Your task to perform on an android device: allow notifications from all sites in the chrome app Image 0: 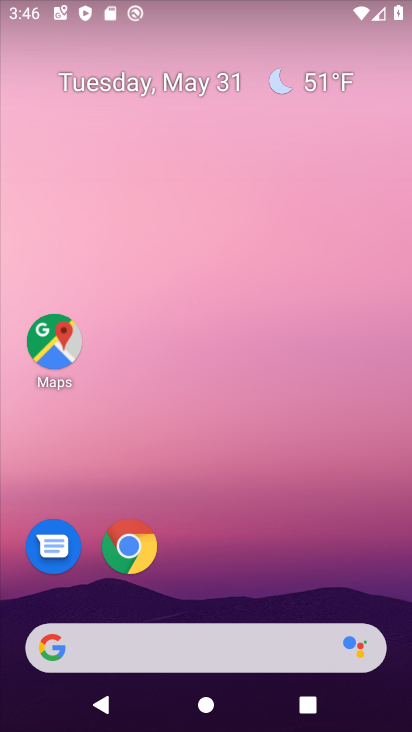
Step 0: drag from (227, 566) to (293, 66)
Your task to perform on an android device: allow notifications from all sites in the chrome app Image 1: 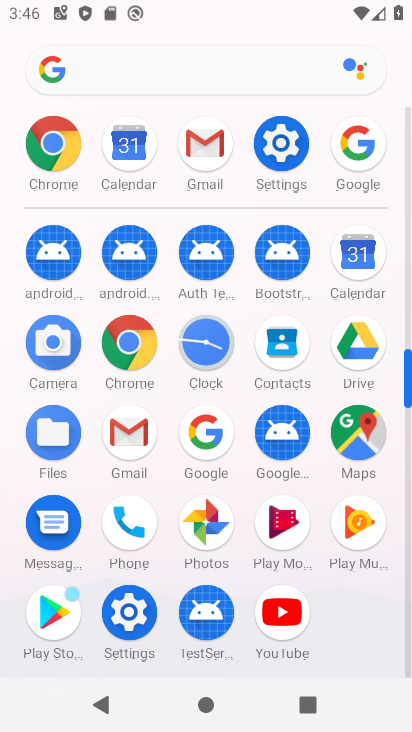
Step 1: click (53, 141)
Your task to perform on an android device: allow notifications from all sites in the chrome app Image 2: 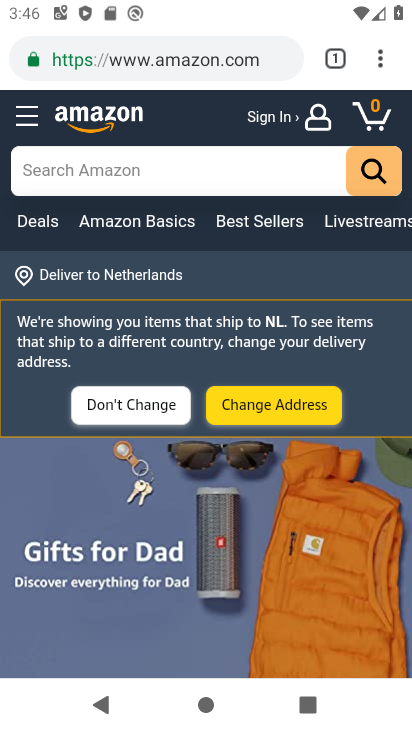
Step 2: click (375, 63)
Your task to perform on an android device: allow notifications from all sites in the chrome app Image 3: 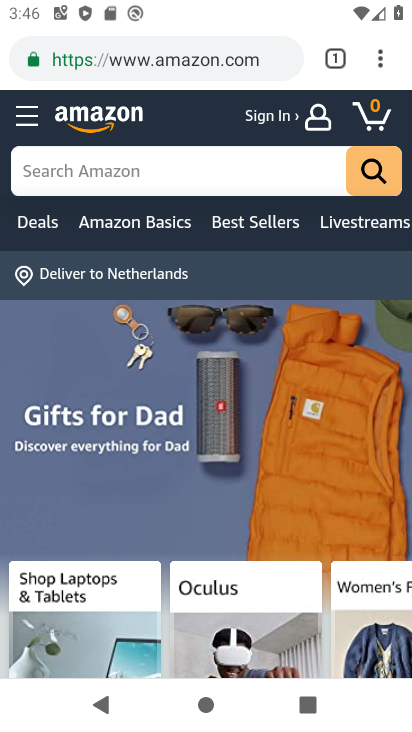
Step 3: click (378, 58)
Your task to perform on an android device: allow notifications from all sites in the chrome app Image 4: 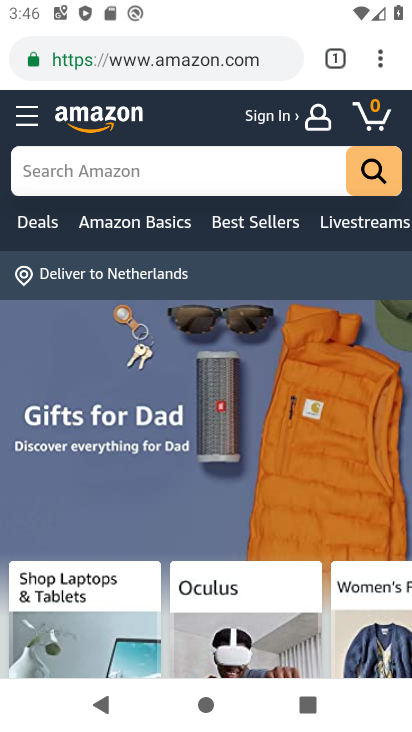
Step 4: click (383, 57)
Your task to perform on an android device: allow notifications from all sites in the chrome app Image 5: 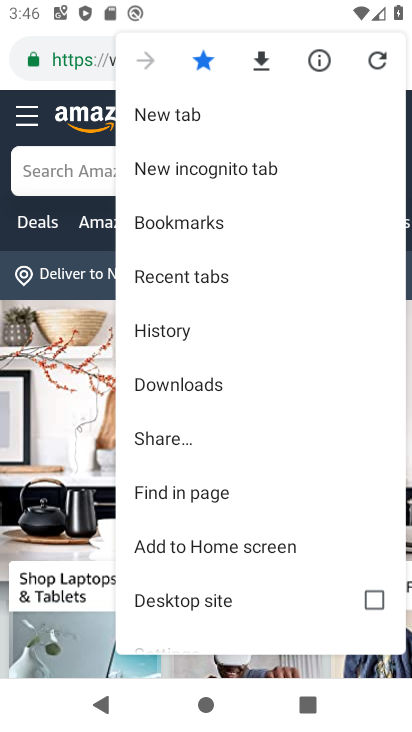
Step 5: drag from (224, 551) to (168, 252)
Your task to perform on an android device: allow notifications from all sites in the chrome app Image 6: 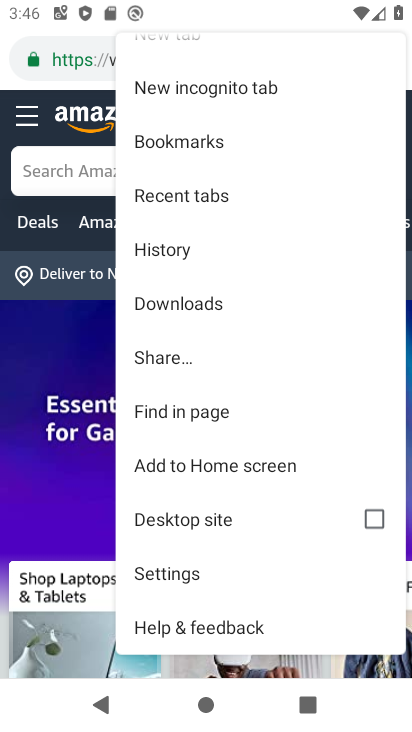
Step 6: click (197, 568)
Your task to perform on an android device: allow notifications from all sites in the chrome app Image 7: 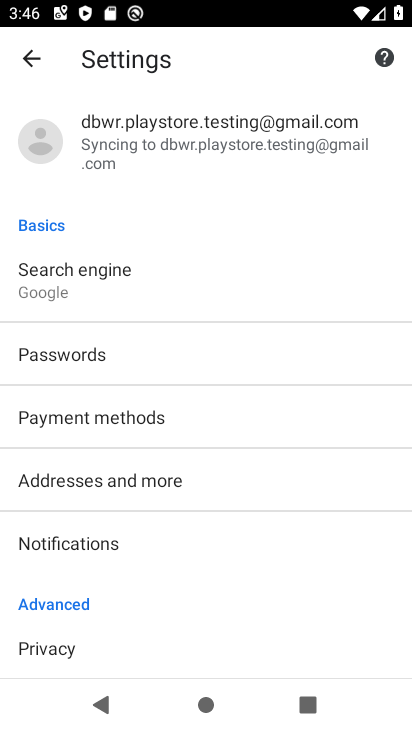
Step 7: drag from (120, 602) to (111, 379)
Your task to perform on an android device: allow notifications from all sites in the chrome app Image 8: 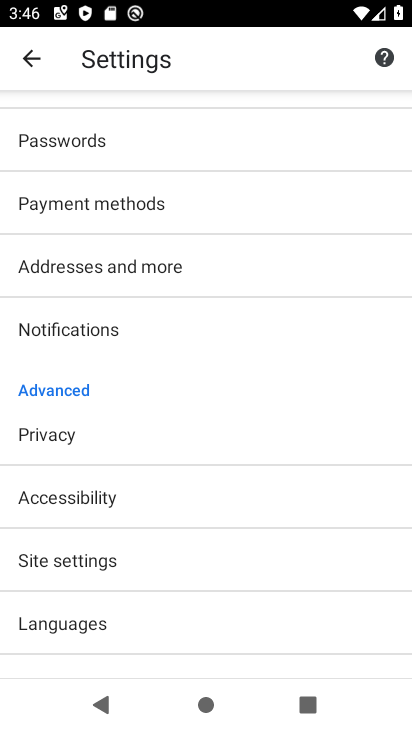
Step 8: click (105, 541)
Your task to perform on an android device: allow notifications from all sites in the chrome app Image 9: 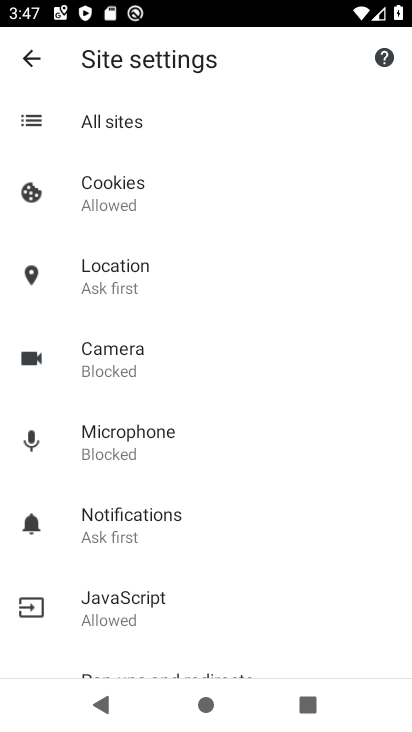
Step 9: click (116, 111)
Your task to perform on an android device: allow notifications from all sites in the chrome app Image 10: 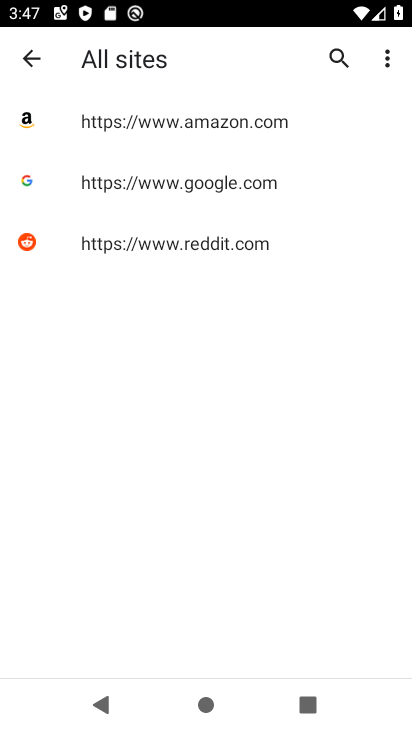
Step 10: click (178, 197)
Your task to perform on an android device: allow notifications from all sites in the chrome app Image 11: 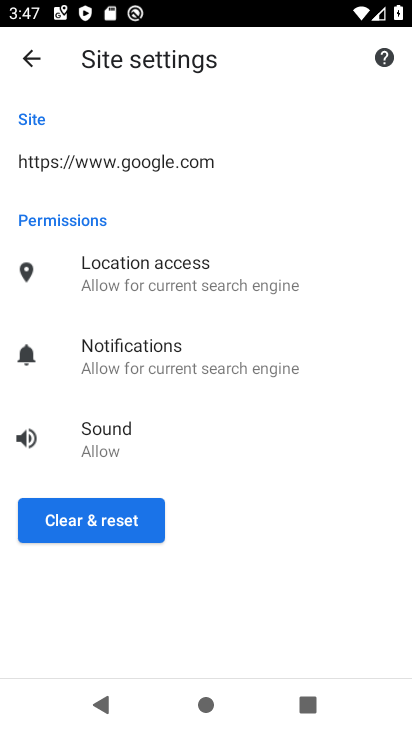
Step 11: click (172, 370)
Your task to perform on an android device: allow notifications from all sites in the chrome app Image 12: 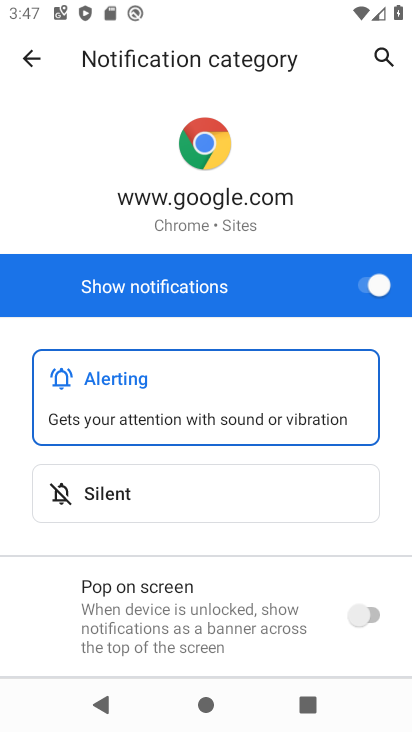
Step 12: task complete